Your task to perform on an android device: Go to internet settings Image 0: 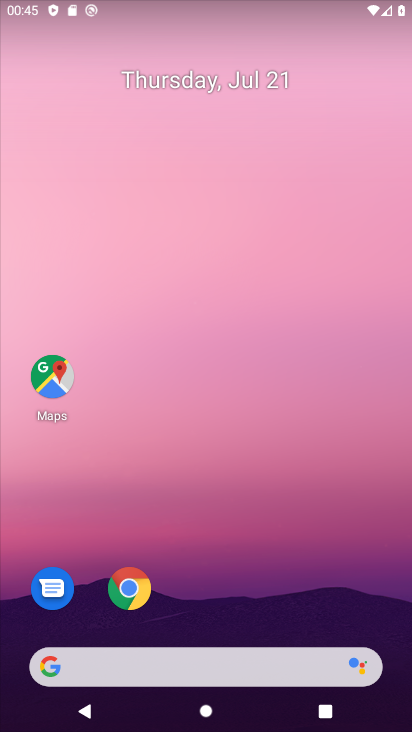
Step 0: drag from (343, 597) to (295, 124)
Your task to perform on an android device: Go to internet settings Image 1: 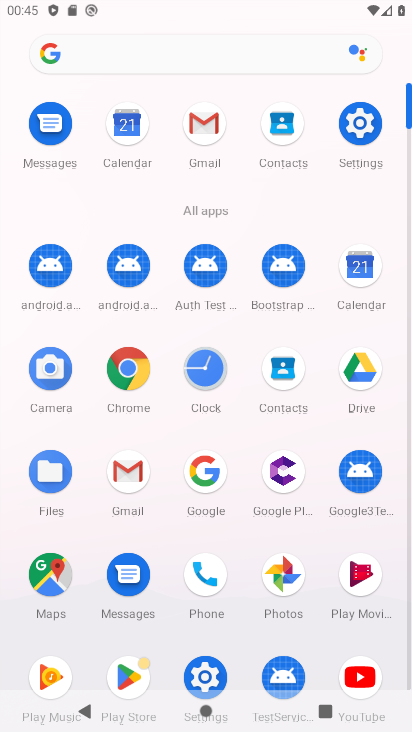
Step 1: click (208, 666)
Your task to perform on an android device: Go to internet settings Image 2: 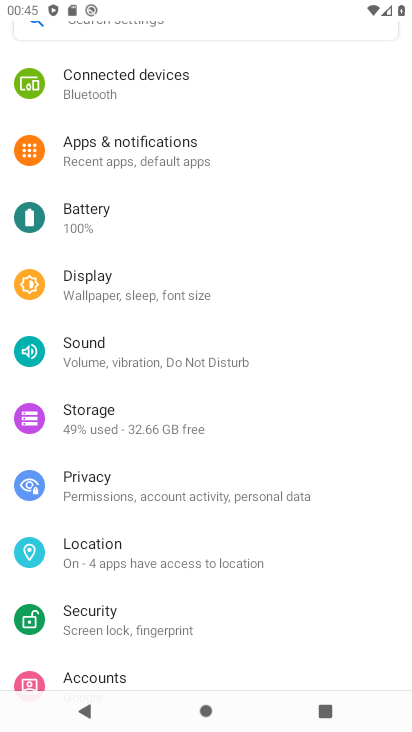
Step 2: drag from (186, 179) to (186, 480)
Your task to perform on an android device: Go to internet settings Image 3: 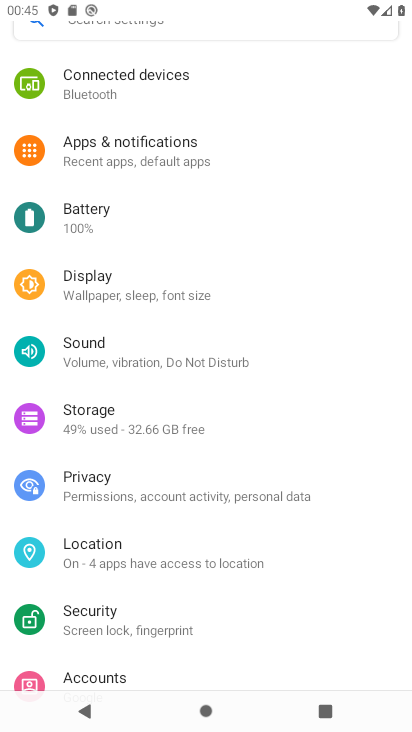
Step 3: drag from (174, 132) to (168, 500)
Your task to perform on an android device: Go to internet settings Image 4: 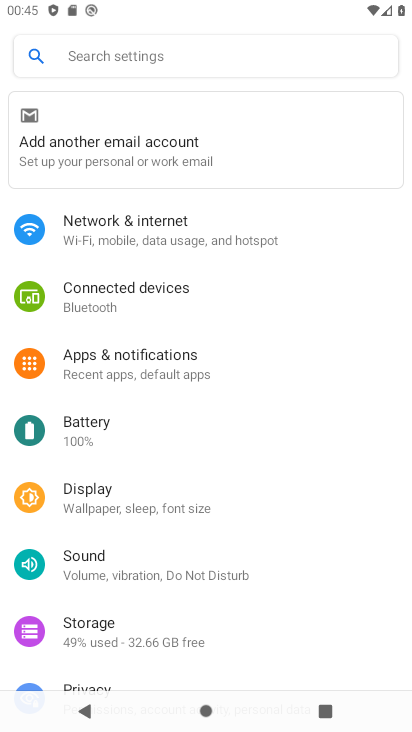
Step 4: drag from (168, 91) to (180, 317)
Your task to perform on an android device: Go to internet settings Image 5: 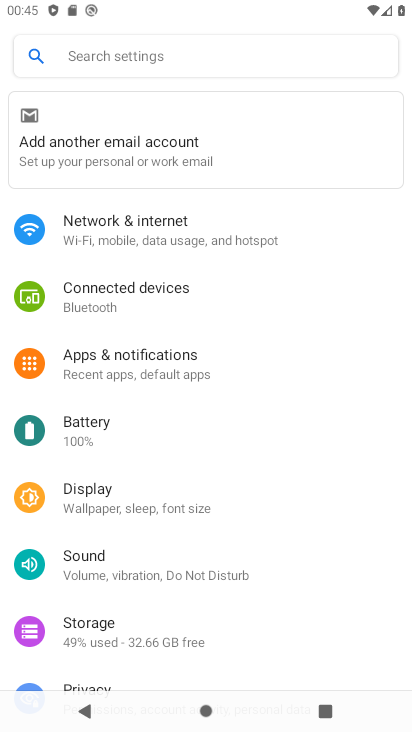
Step 5: click (206, 220)
Your task to perform on an android device: Go to internet settings Image 6: 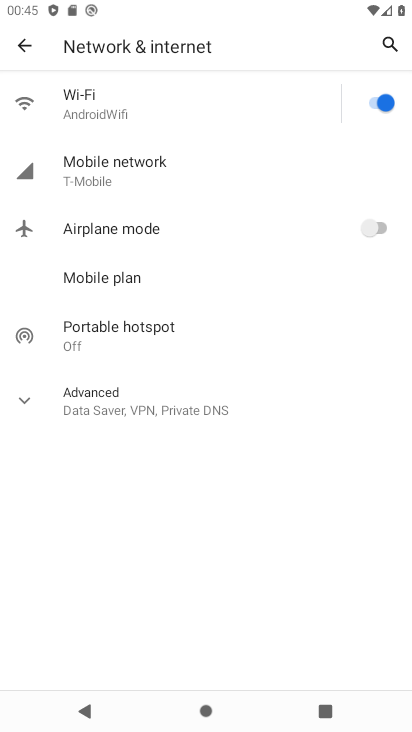
Step 6: task complete